Your task to perform on an android device: turn off airplane mode Image 0: 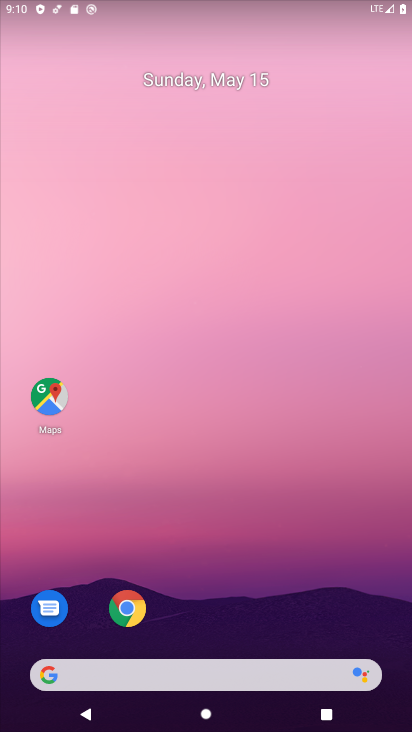
Step 0: drag from (329, 559) to (352, 112)
Your task to perform on an android device: turn off airplane mode Image 1: 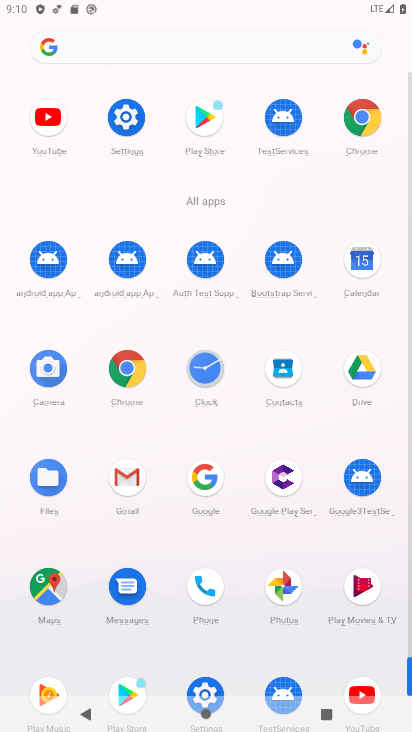
Step 1: click (132, 124)
Your task to perform on an android device: turn off airplane mode Image 2: 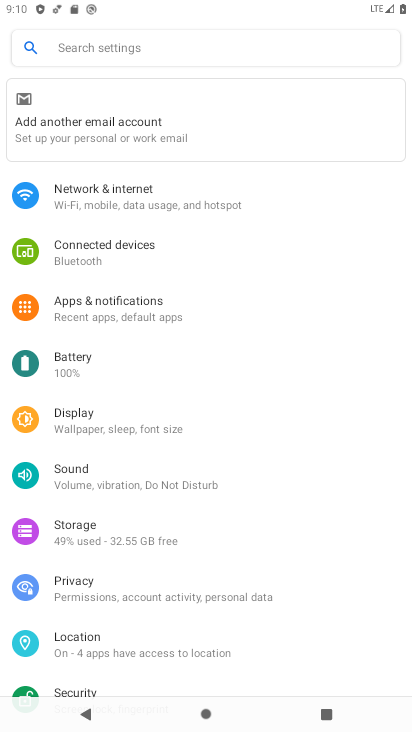
Step 2: click (98, 213)
Your task to perform on an android device: turn off airplane mode Image 3: 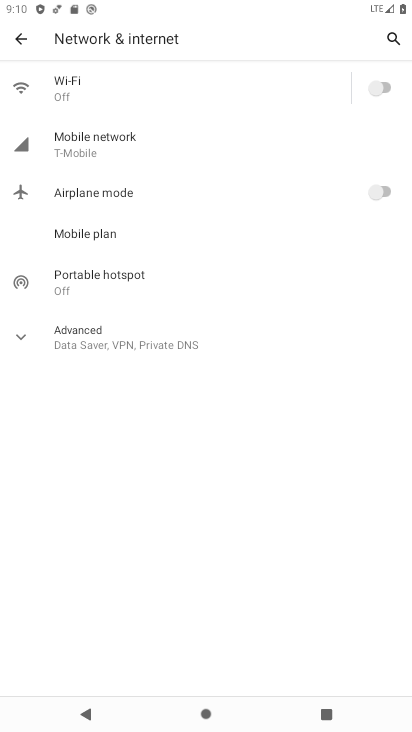
Step 3: task complete